Your task to perform on an android device: Open maps Image 0: 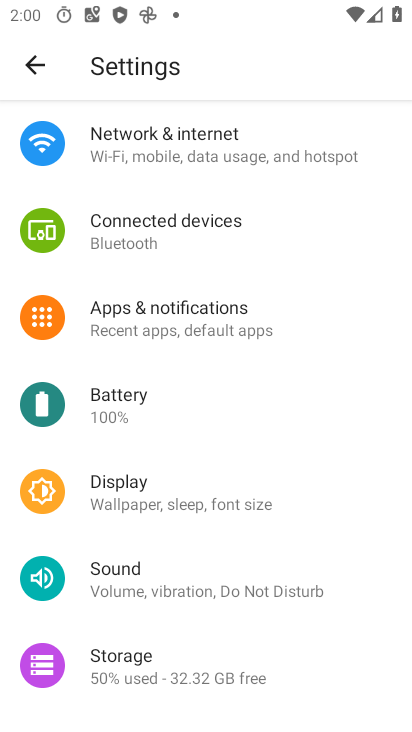
Step 0: drag from (347, 621) to (344, 478)
Your task to perform on an android device: Open maps Image 1: 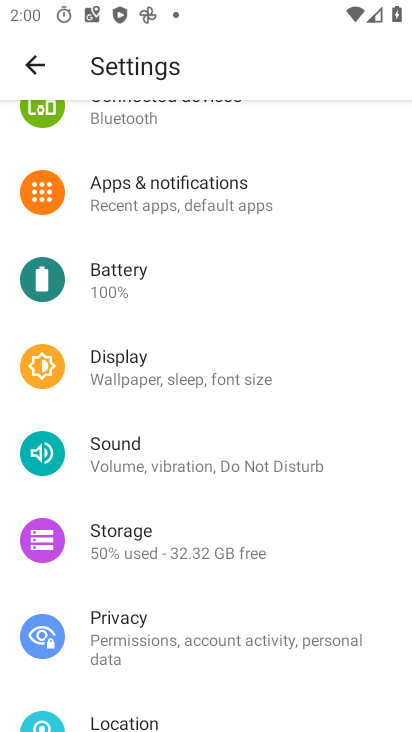
Step 1: press home button
Your task to perform on an android device: Open maps Image 2: 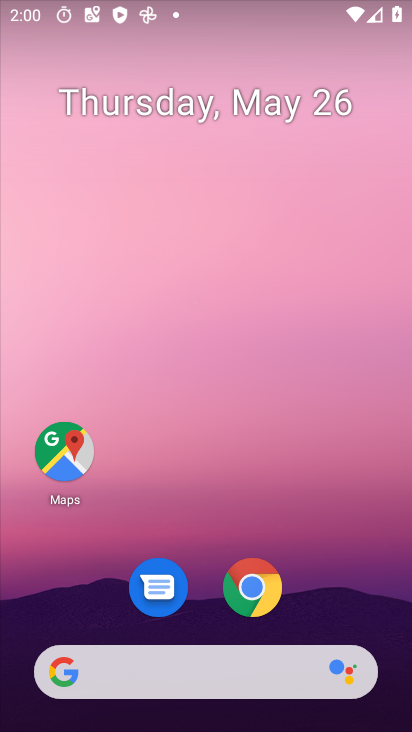
Step 2: drag from (338, 572) to (349, 241)
Your task to perform on an android device: Open maps Image 3: 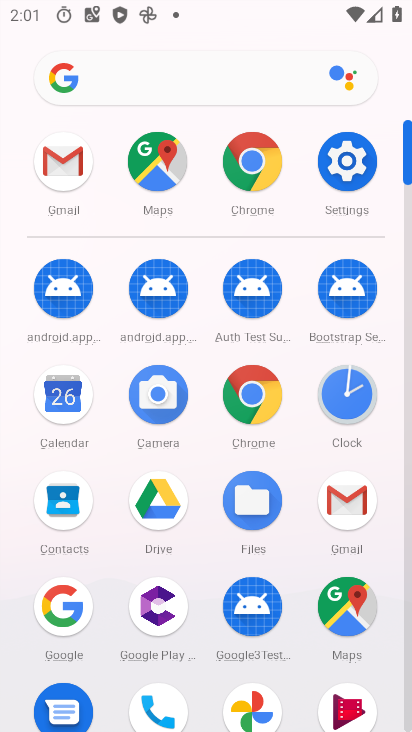
Step 3: drag from (303, 635) to (295, 449)
Your task to perform on an android device: Open maps Image 4: 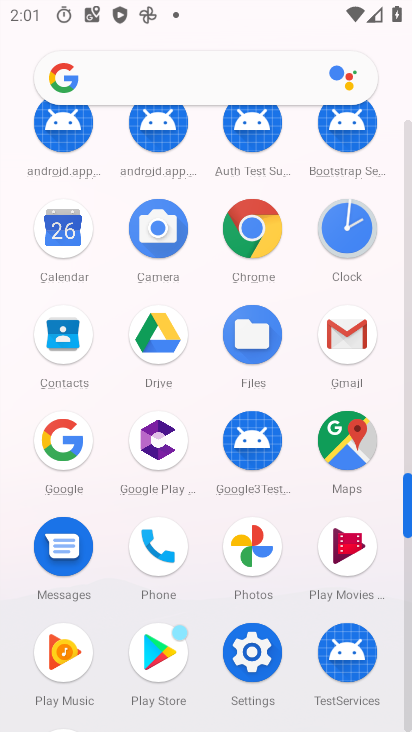
Step 4: drag from (289, 604) to (292, 453)
Your task to perform on an android device: Open maps Image 5: 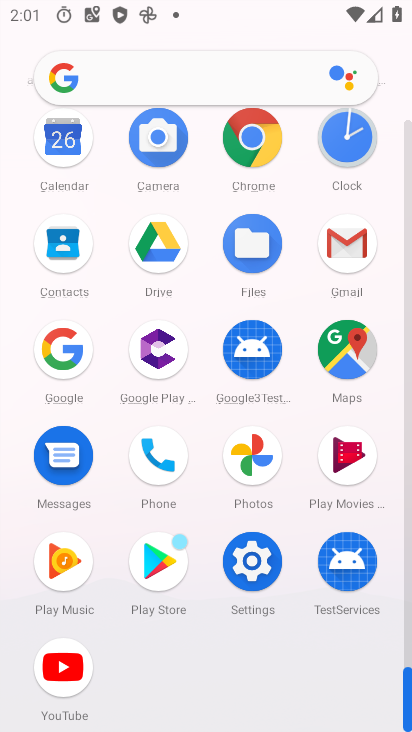
Step 5: click (338, 364)
Your task to perform on an android device: Open maps Image 6: 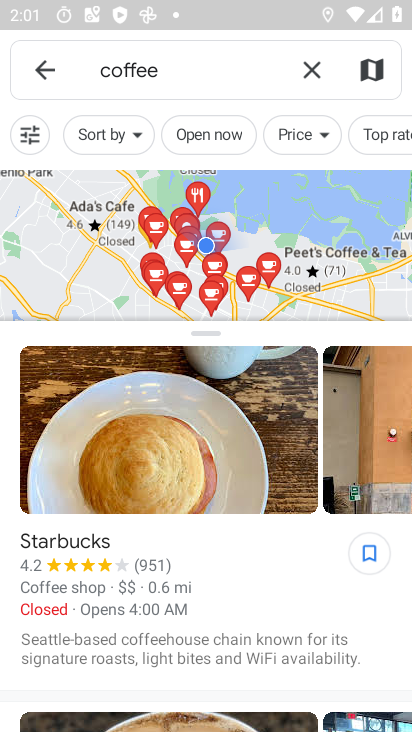
Step 6: task complete